Your task to perform on an android device: delete a single message in the gmail app Image 0: 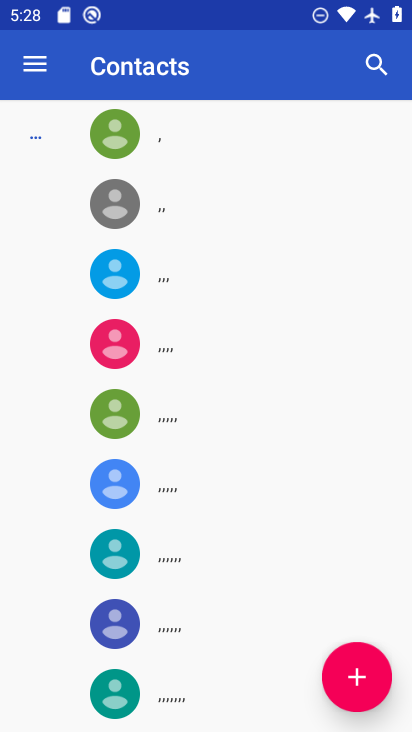
Step 0: press back button
Your task to perform on an android device: delete a single message in the gmail app Image 1: 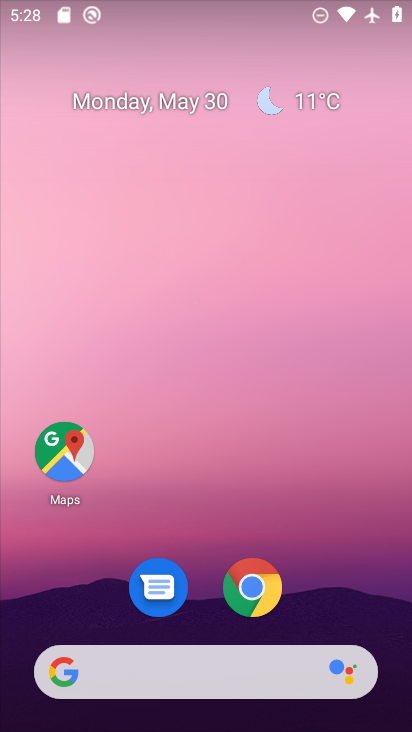
Step 1: drag from (378, 559) to (254, 20)
Your task to perform on an android device: delete a single message in the gmail app Image 2: 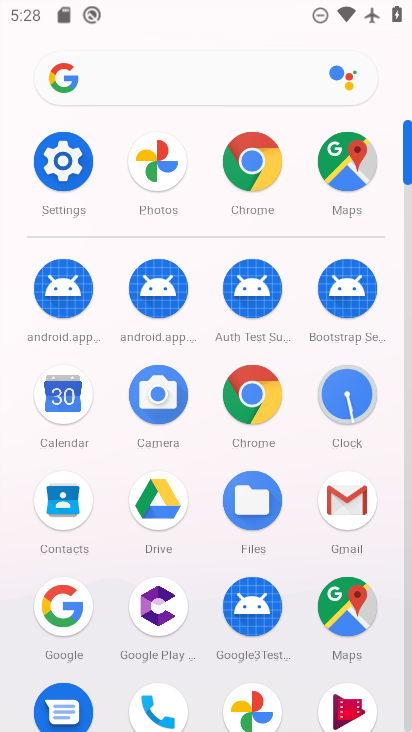
Step 2: drag from (27, 607) to (26, 282)
Your task to perform on an android device: delete a single message in the gmail app Image 3: 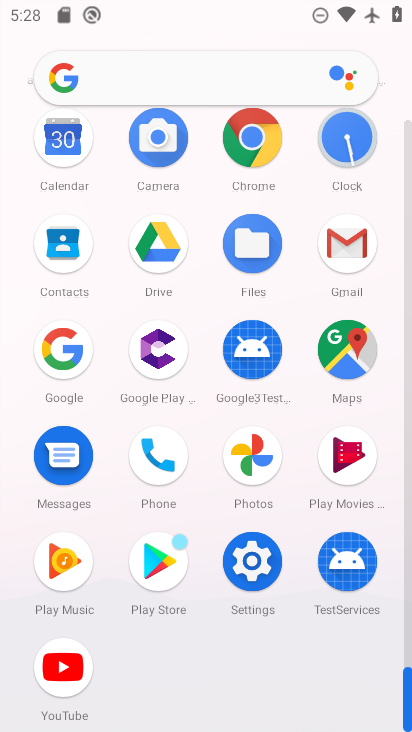
Step 3: click (349, 237)
Your task to perform on an android device: delete a single message in the gmail app Image 4: 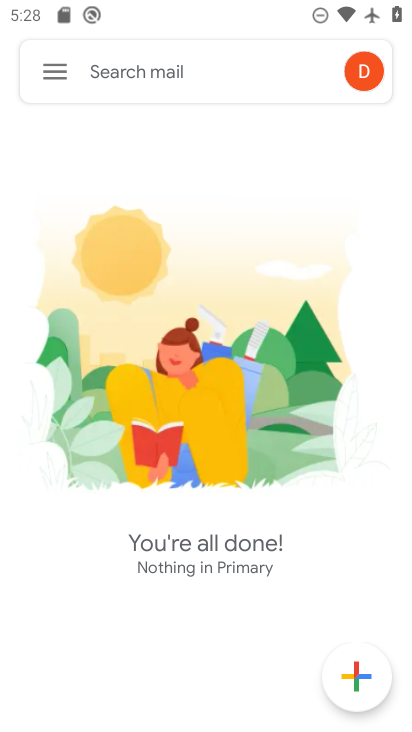
Step 4: click (46, 73)
Your task to perform on an android device: delete a single message in the gmail app Image 5: 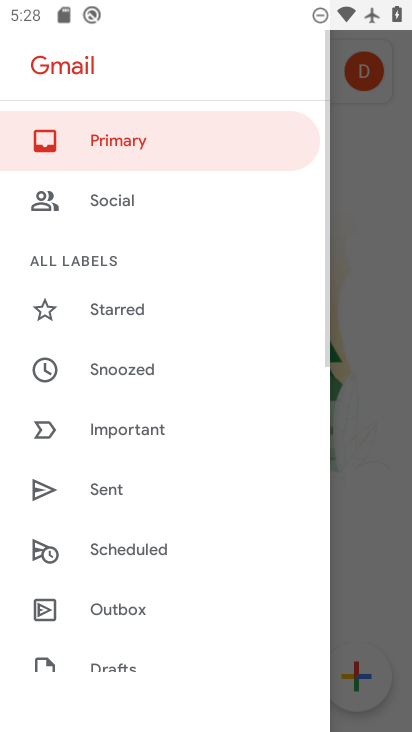
Step 5: drag from (176, 614) to (198, 165)
Your task to perform on an android device: delete a single message in the gmail app Image 6: 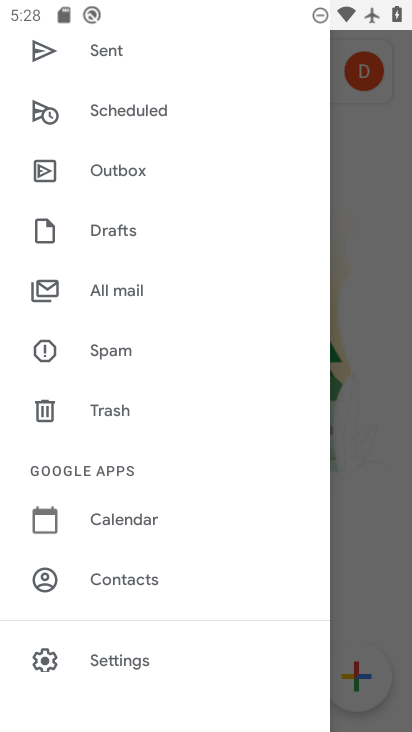
Step 6: click (131, 653)
Your task to perform on an android device: delete a single message in the gmail app Image 7: 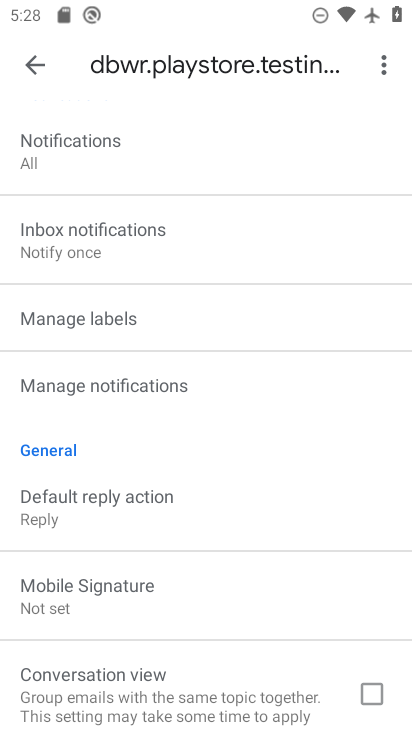
Step 7: click (36, 58)
Your task to perform on an android device: delete a single message in the gmail app Image 8: 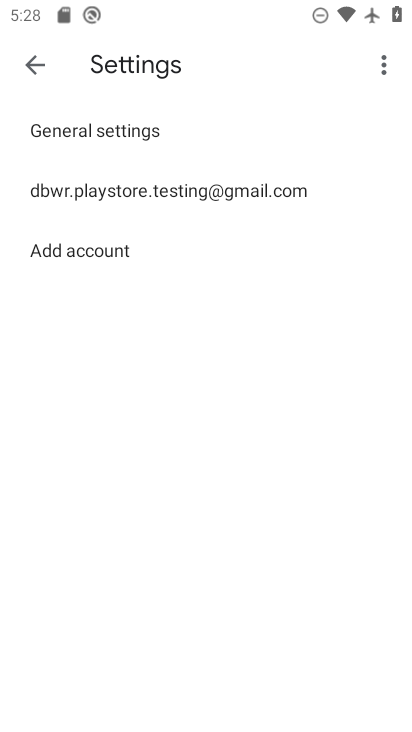
Step 8: click (36, 58)
Your task to perform on an android device: delete a single message in the gmail app Image 9: 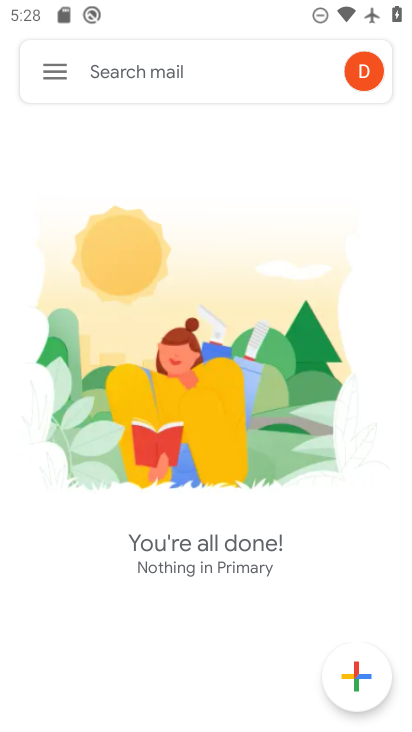
Step 9: click (53, 64)
Your task to perform on an android device: delete a single message in the gmail app Image 10: 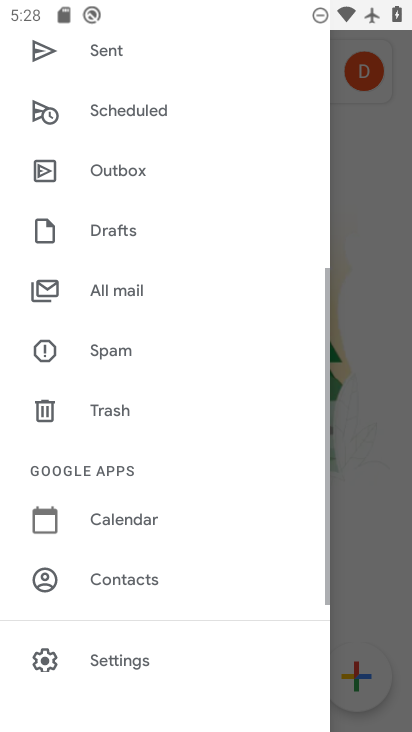
Step 10: click (140, 284)
Your task to perform on an android device: delete a single message in the gmail app Image 11: 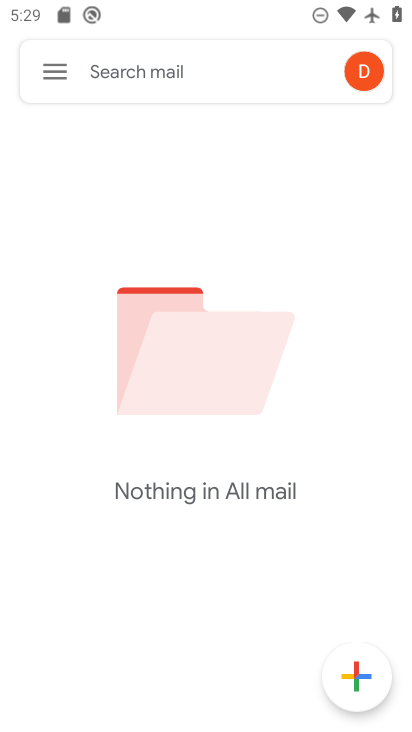
Step 11: click (59, 69)
Your task to perform on an android device: delete a single message in the gmail app Image 12: 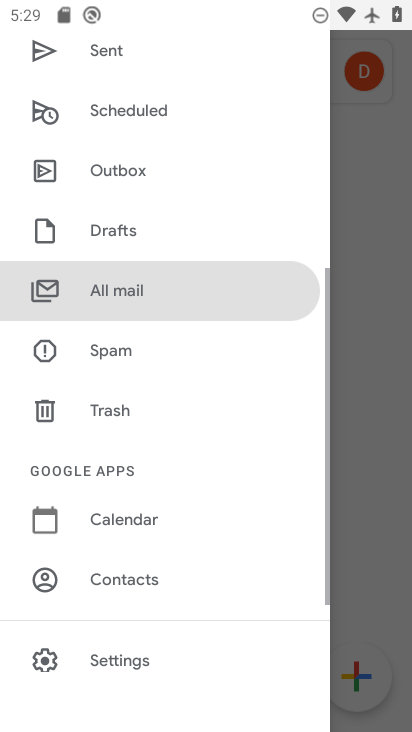
Step 12: drag from (212, 149) to (204, 657)
Your task to perform on an android device: delete a single message in the gmail app Image 13: 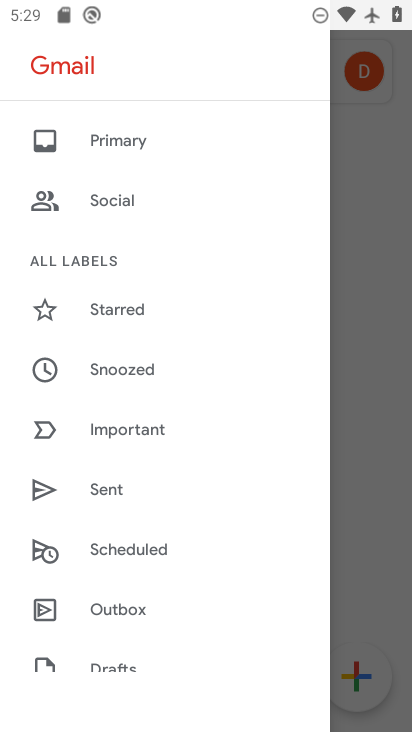
Step 13: drag from (202, 305) to (203, 624)
Your task to perform on an android device: delete a single message in the gmail app Image 14: 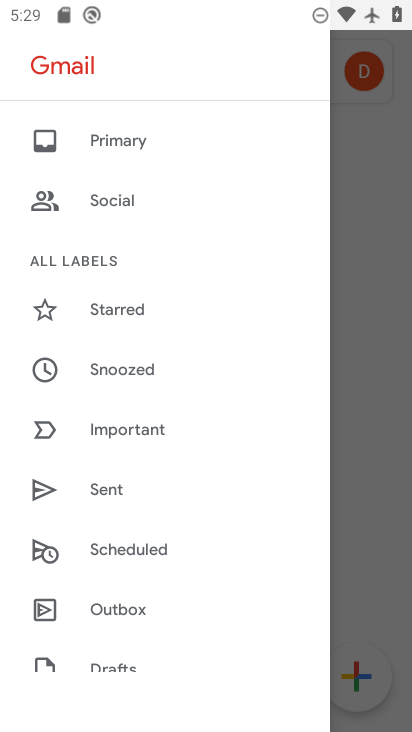
Step 14: click (159, 148)
Your task to perform on an android device: delete a single message in the gmail app Image 15: 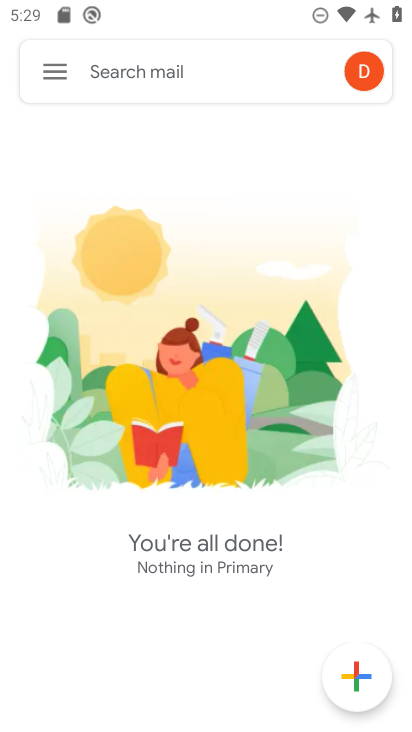
Step 15: task complete